Your task to perform on an android device: Turn on the flashlight Image 0: 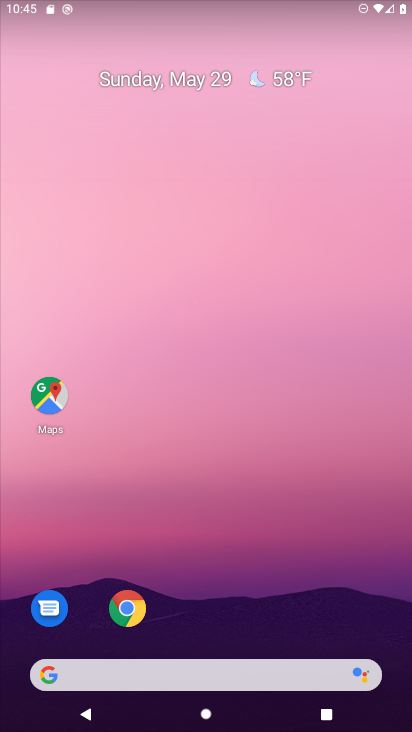
Step 0: drag from (205, 4) to (247, 531)
Your task to perform on an android device: Turn on the flashlight Image 1: 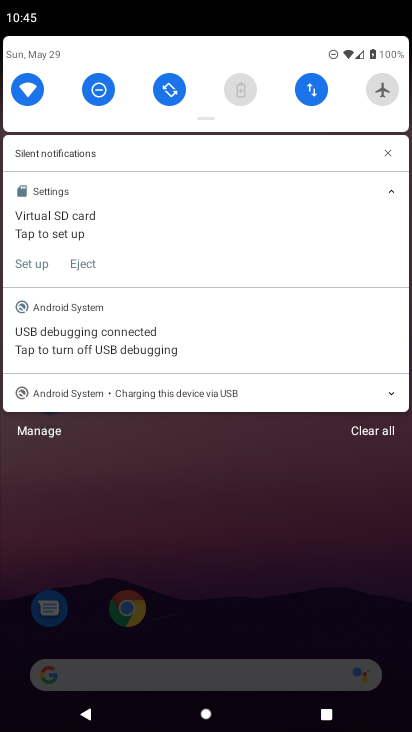
Step 1: drag from (259, 82) to (313, 500)
Your task to perform on an android device: Turn on the flashlight Image 2: 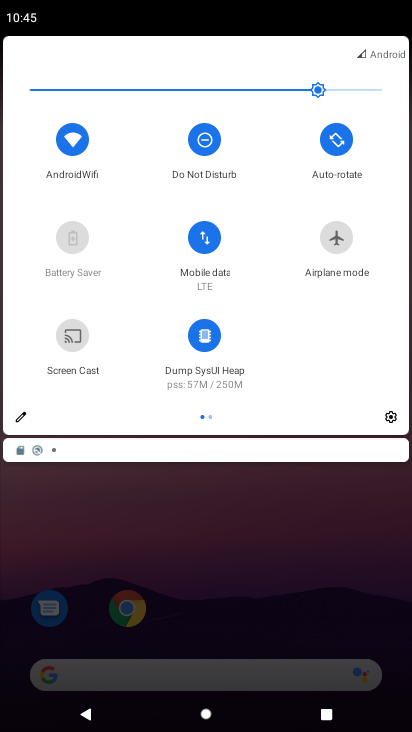
Step 2: drag from (354, 302) to (9, 388)
Your task to perform on an android device: Turn on the flashlight Image 3: 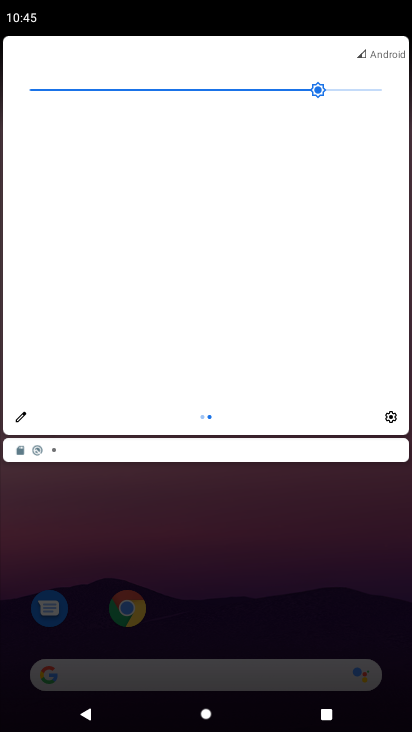
Step 3: click (25, 417)
Your task to perform on an android device: Turn on the flashlight Image 4: 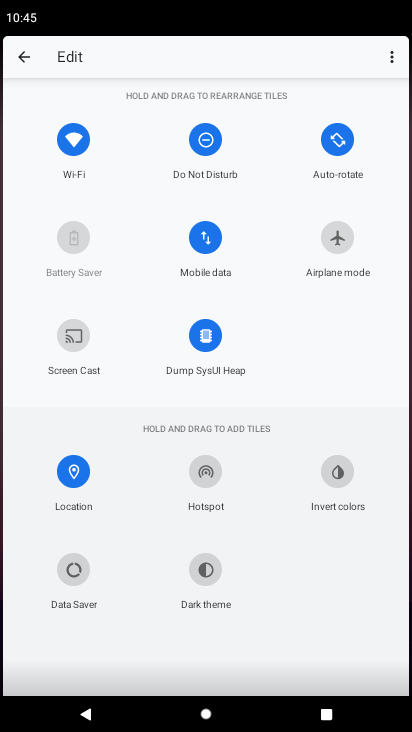
Step 4: task complete